Your task to perform on an android device: What's the weather today? Image 0: 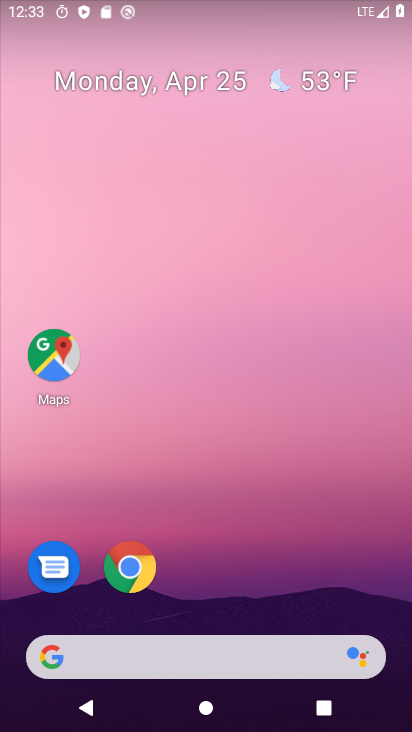
Step 0: click (304, 79)
Your task to perform on an android device: What's the weather today? Image 1: 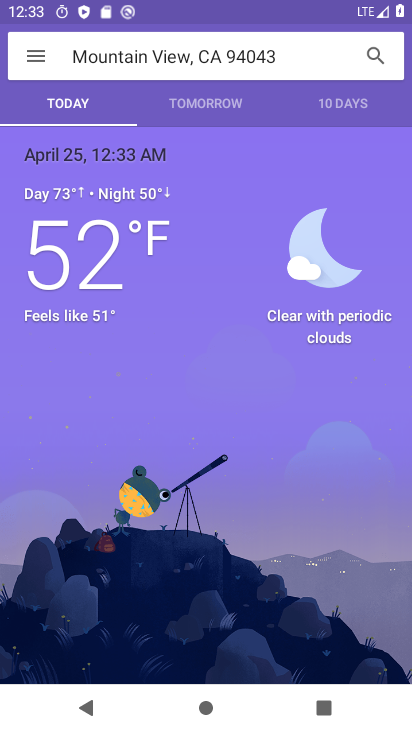
Step 1: task complete